Your task to perform on an android device: Do I have any events today? Image 0: 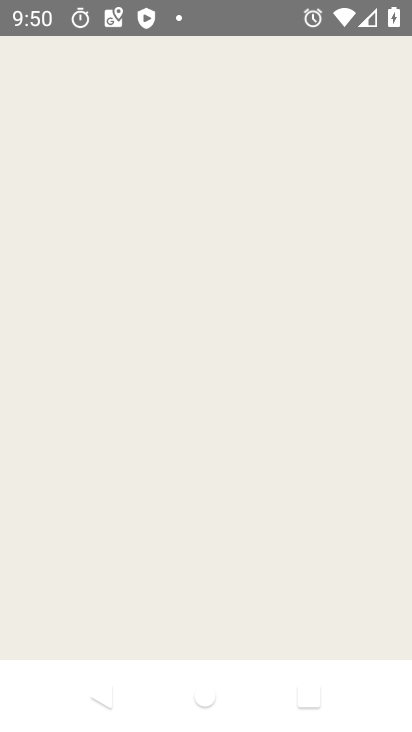
Step 0: click (221, 11)
Your task to perform on an android device: Do I have any events today? Image 1: 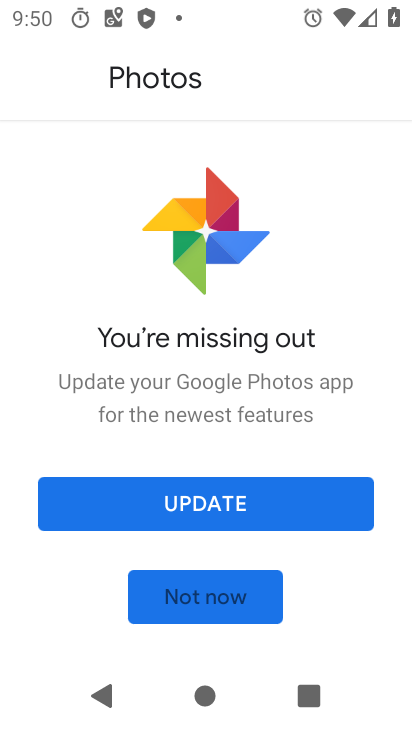
Step 1: press home button
Your task to perform on an android device: Do I have any events today? Image 2: 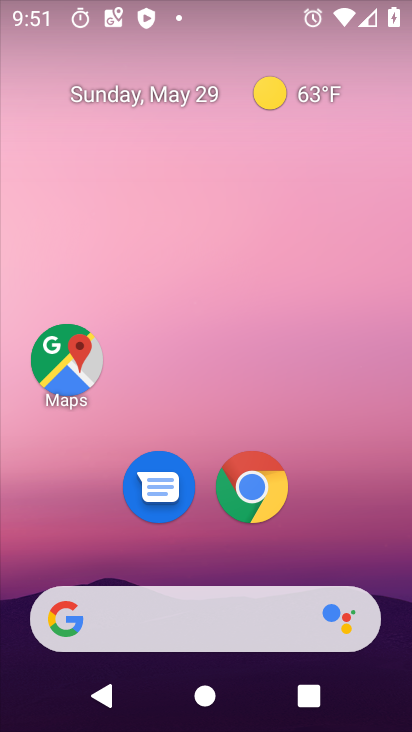
Step 2: drag from (172, 563) to (93, 61)
Your task to perform on an android device: Do I have any events today? Image 3: 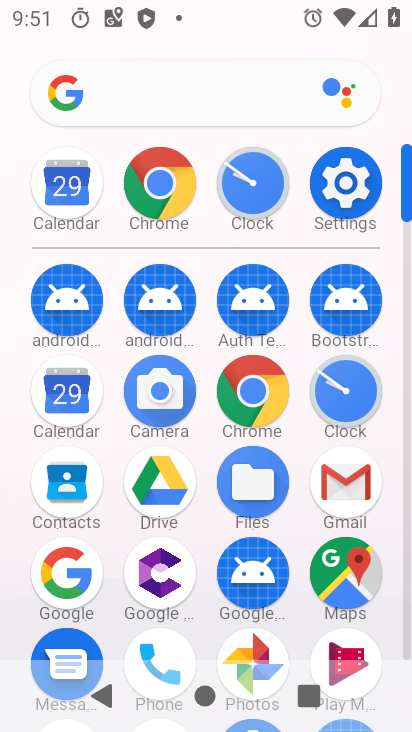
Step 3: click (71, 398)
Your task to perform on an android device: Do I have any events today? Image 4: 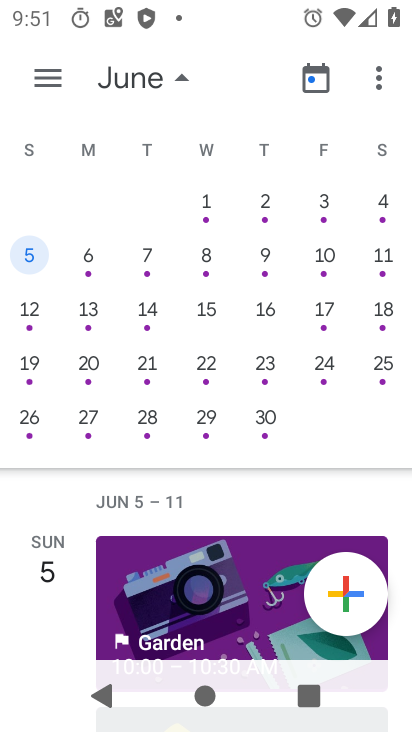
Step 4: task complete